Your task to perform on an android device: Open Yahoo.com Image 0: 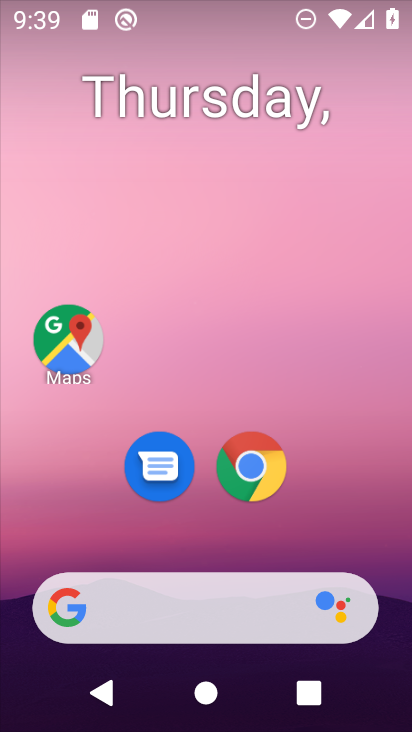
Step 0: drag from (250, 662) to (228, 96)
Your task to perform on an android device: Open Yahoo.com Image 1: 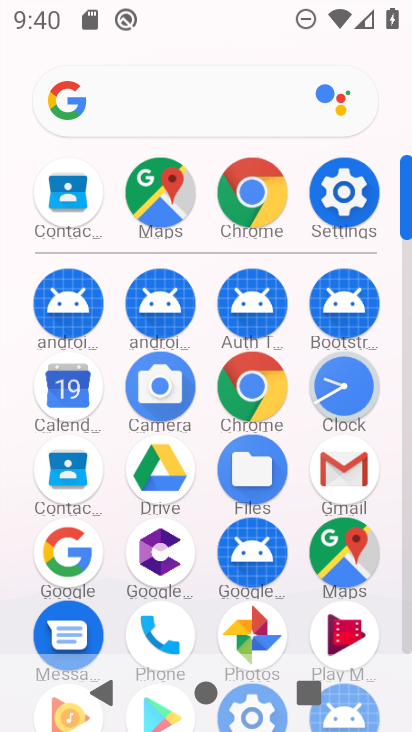
Step 1: click (269, 392)
Your task to perform on an android device: Open Yahoo.com Image 2: 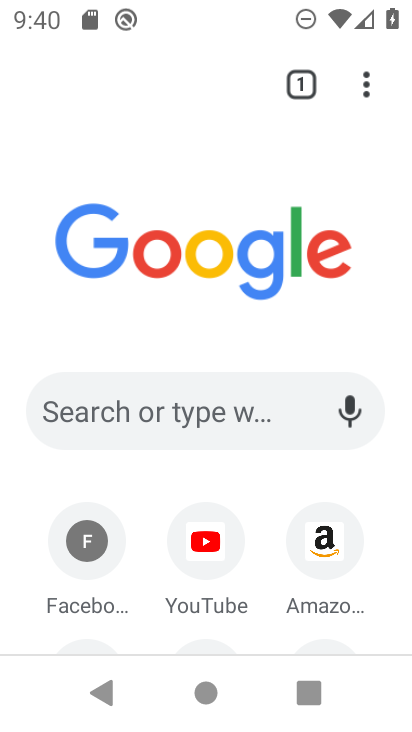
Step 2: drag from (285, 516) to (220, 56)
Your task to perform on an android device: Open Yahoo.com Image 3: 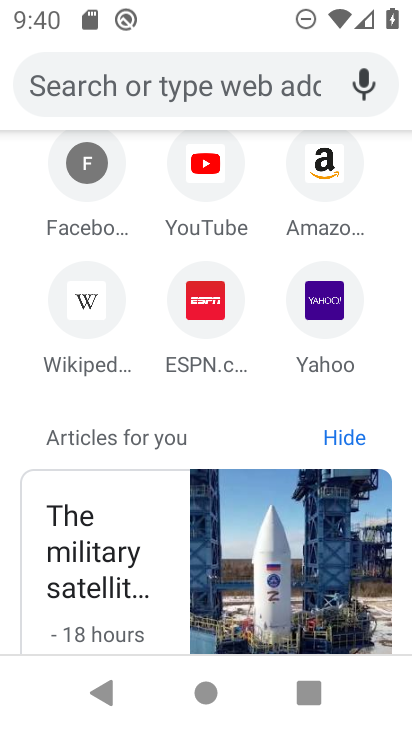
Step 3: click (327, 305)
Your task to perform on an android device: Open Yahoo.com Image 4: 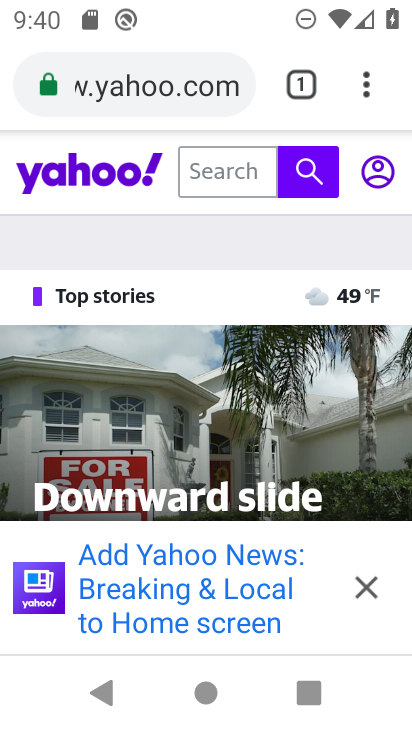
Step 4: task complete